Your task to perform on an android device: open chrome privacy settings Image 0: 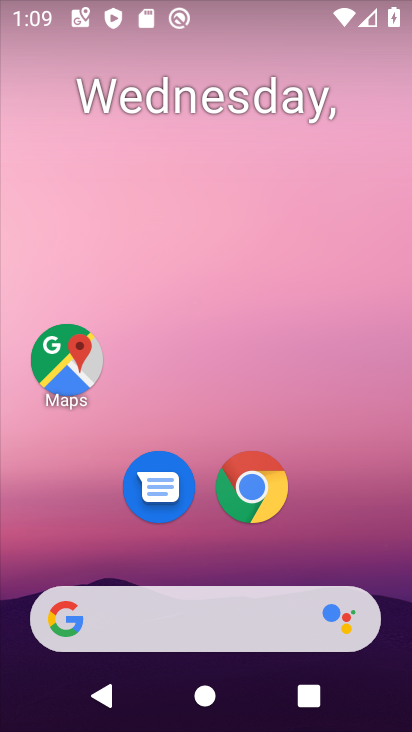
Step 0: click (253, 509)
Your task to perform on an android device: open chrome privacy settings Image 1: 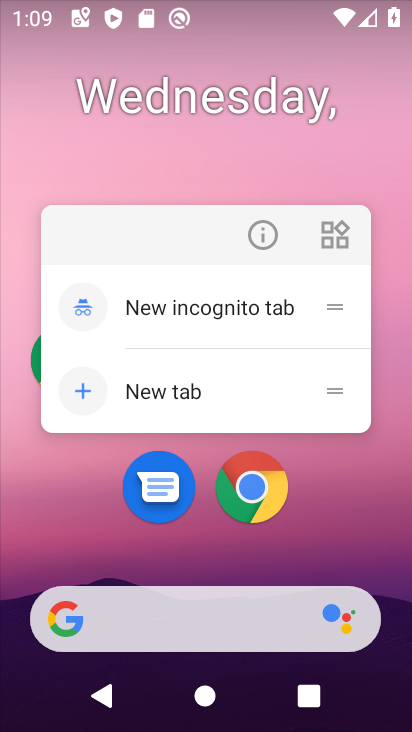
Step 1: click (253, 510)
Your task to perform on an android device: open chrome privacy settings Image 2: 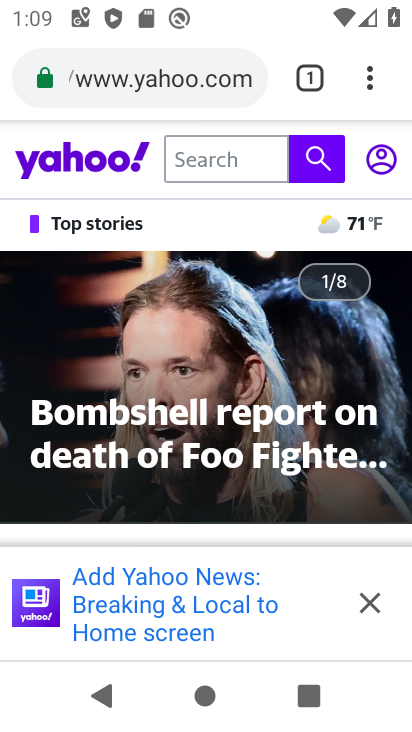
Step 2: click (374, 89)
Your task to perform on an android device: open chrome privacy settings Image 3: 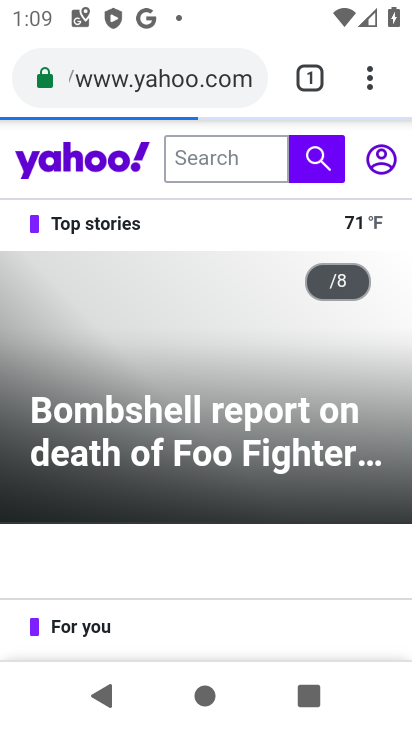
Step 3: click (367, 86)
Your task to perform on an android device: open chrome privacy settings Image 4: 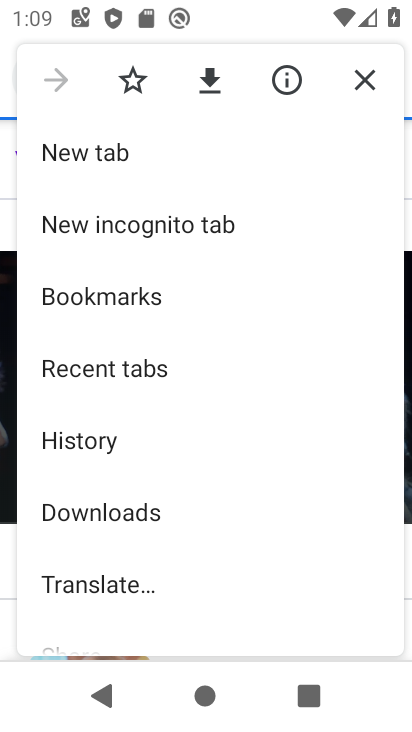
Step 4: drag from (113, 534) to (168, 264)
Your task to perform on an android device: open chrome privacy settings Image 5: 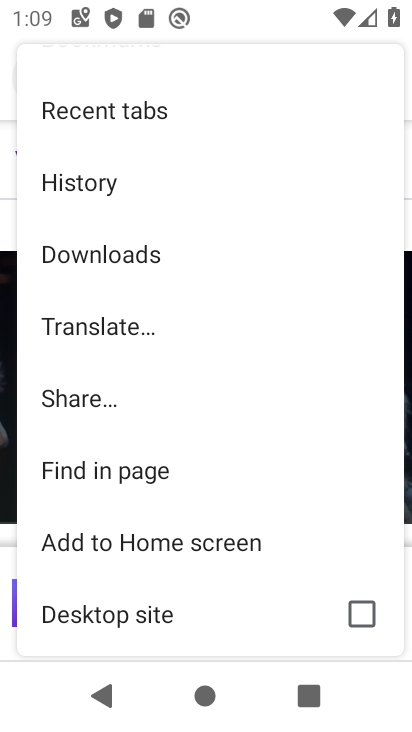
Step 5: drag from (102, 542) to (176, 87)
Your task to perform on an android device: open chrome privacy settings Image 6: 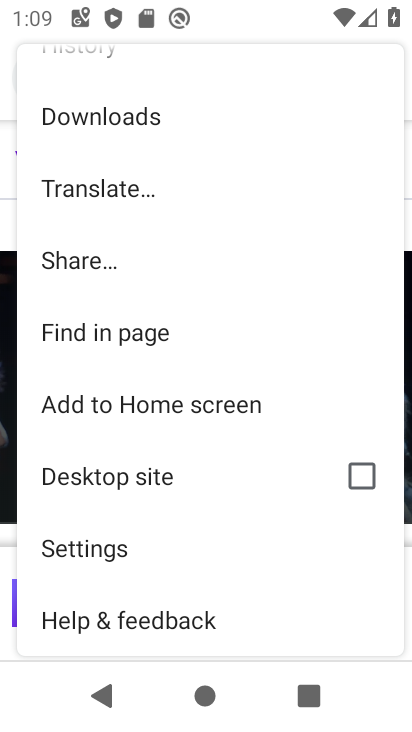
Step 6: click (116, 546)
Your task to perform on an android device: open chrome privacy settings Image 7: 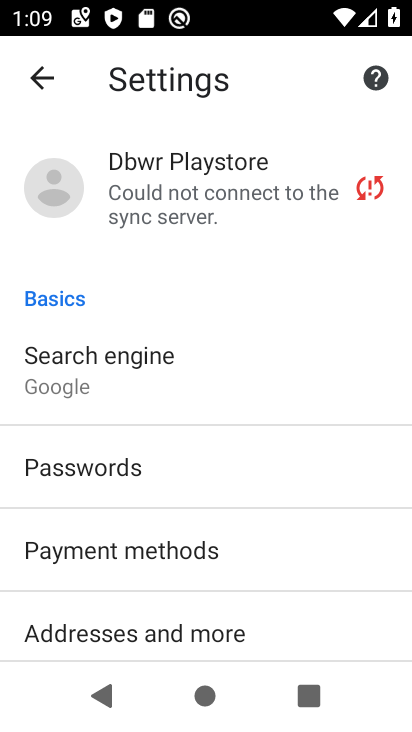
Step 7: drag from (151, 562) to (167, 130)
Your task to perform on an android device: open chrome privacy settings Image 8: 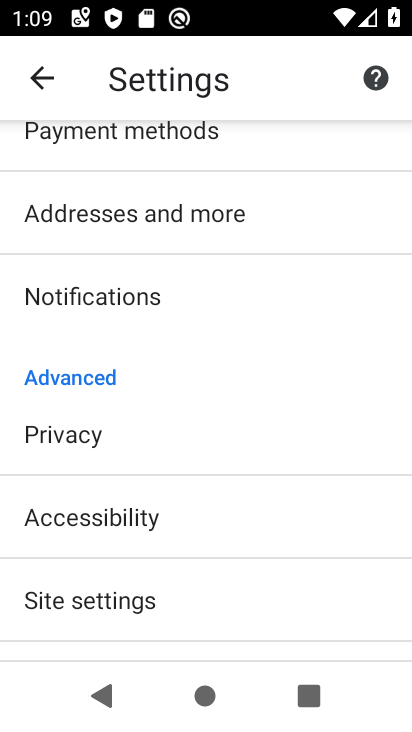
Step 8: click (86, 427)
Your task to perform on an android device: open chrome privacy settings Image 9: 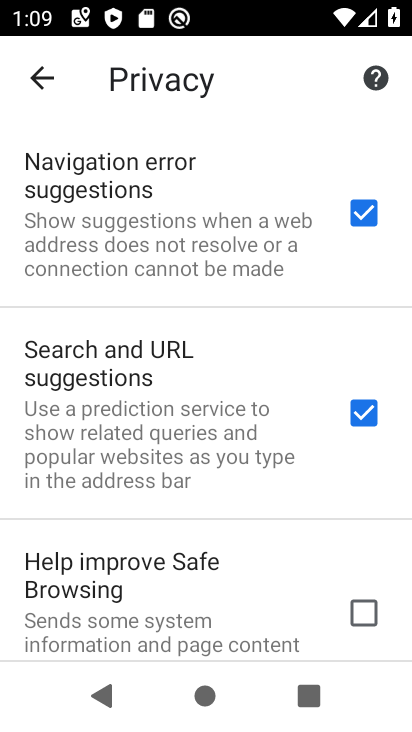
Step 9: task complete